Your task to perform on an android device: read, delete, or share a saved page in the chrome app Image 0: 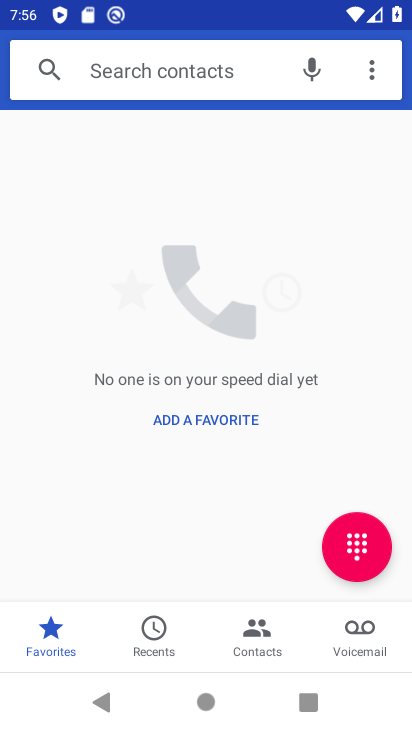
Step 0: press home button
Your task to perform on an android device: read, delete, or share a saved page in the chrome app Image 1: 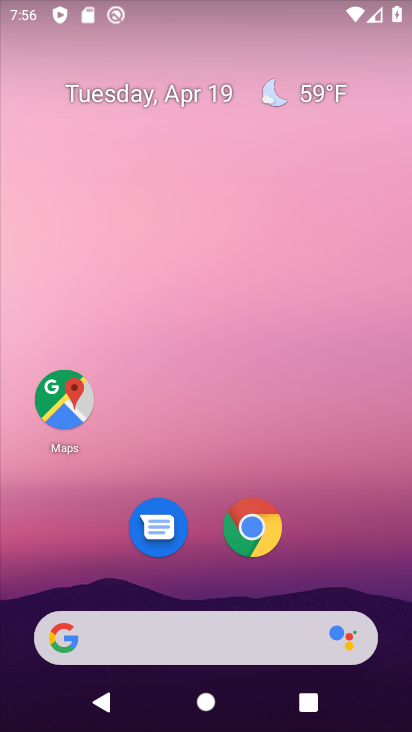
Step 1: click (238, 515)
Your task to perform on an android device: read, delete, or share a saved page in the chrome app Image 2: 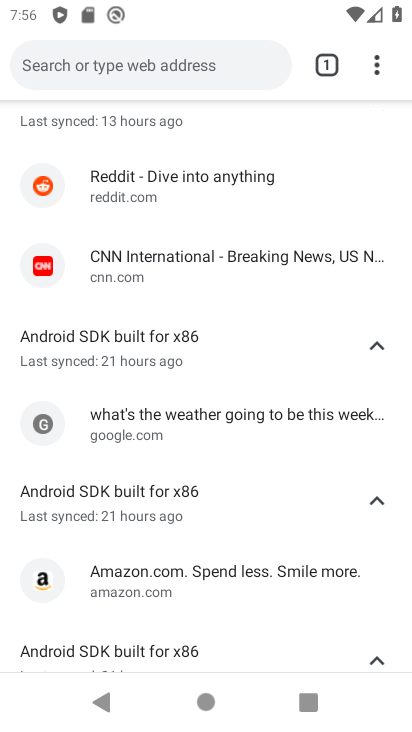
Step 2: click (367, 56)
Your task to perform on an android device: read, delete, or share a saved page in the chrome app Image 3: 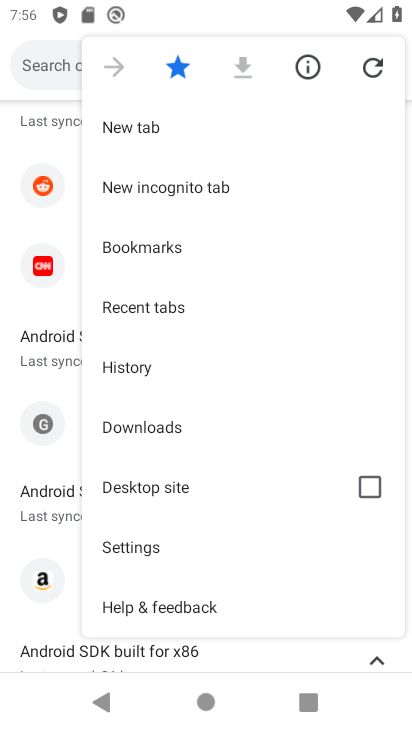
Step 3: click (154, 417)
Your task to perform on an android device: read, delete, or share a saved page in the chrome app Image 4: 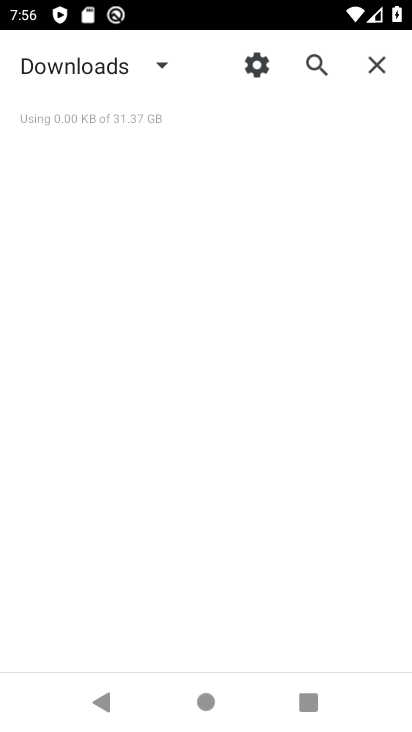
Step 4: click (149, 61)
Your task to perform on an android device: read, delete, or share a saved page in the chrome app Image 5: 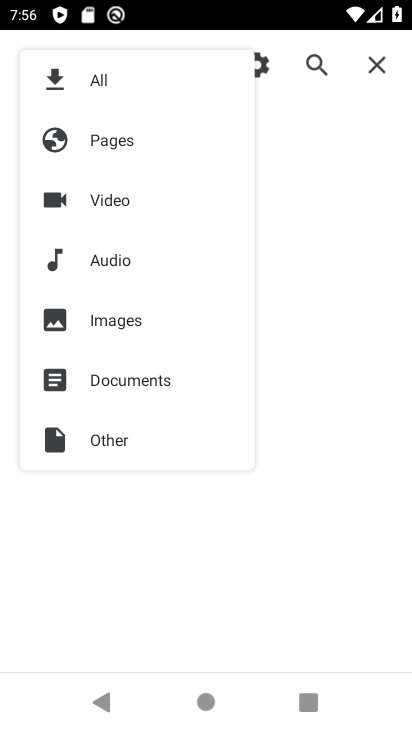
Step 5: click (123, 140)
Your task to perform on an android device: read, delete, or share a saved page in the chrome app Image 6: 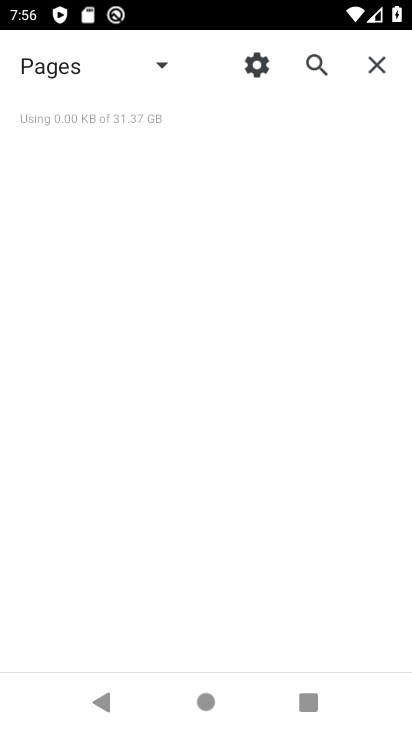
Step 6: task complete